Your task to perform on an android device: Open the calendar and show me this week's events? Image 0: 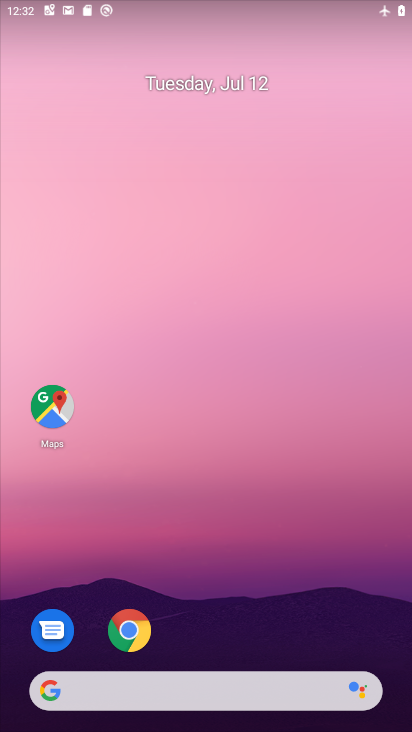
Step 0: drag from (230, 644) to (360, 242)
Your task to perform on an android device: Open the calendar and show me this week's events? Image 1: 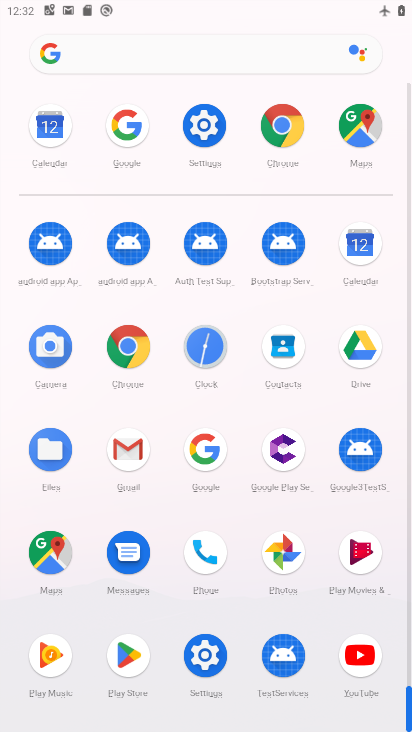
Step 1: click (359, 255)
Your task to perform on an android device: Open the calendar and show me this week's events? Image 2: 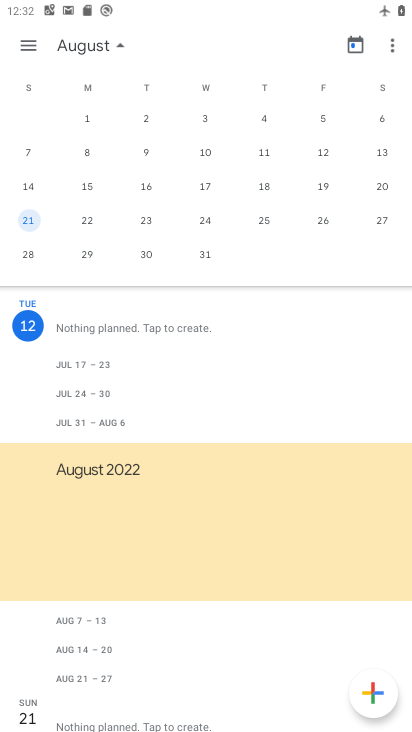
Step 2: drag from (66, 165) to (290, 155)
Your task to perform on an android device: Open the calendar and show me this week's events? Image 3: 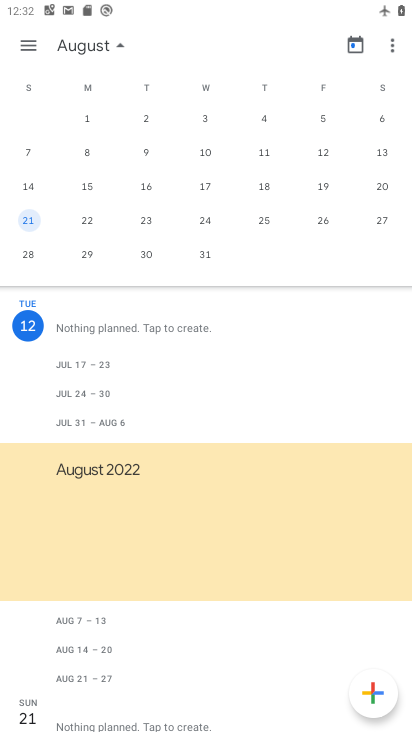
Step 3: drag from (65, 162) to (373, 197)
Your task to perform on an android device: Open the calendar and show me this week's events? Image 4: 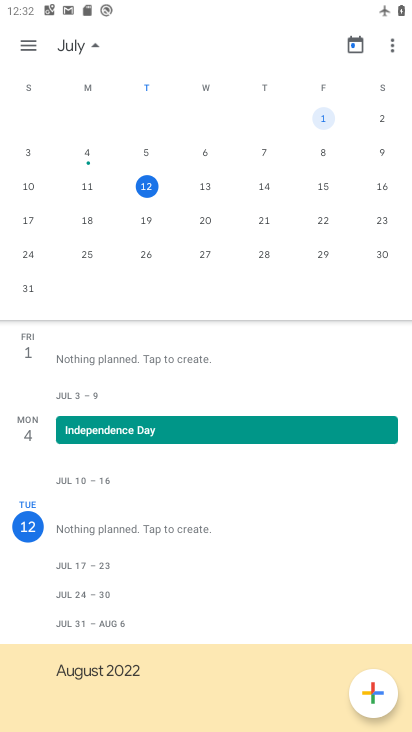
Step 4: click (152, 189)
Your task to perform on an android device: Open the calendar and show me this week's events? Image 5: 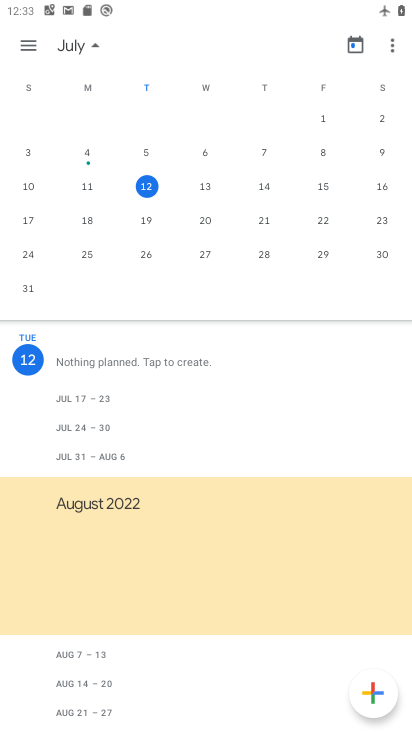
Step 5: task complete